Your task to perform on an android device: delete a single message in the gmail app Image 0: 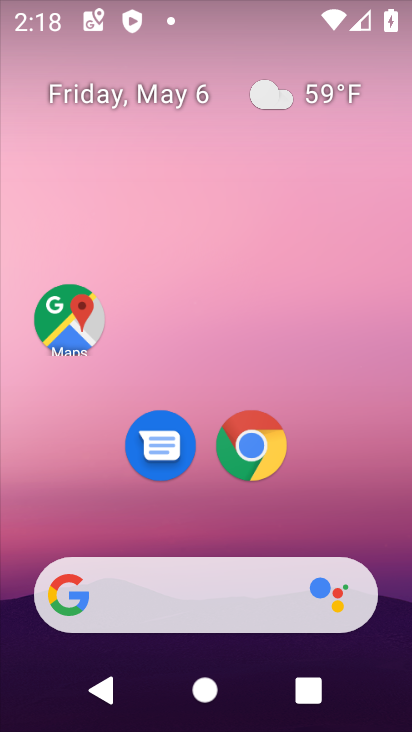
Step 0: click (236, 87)
Your task to perform on an android device: delete a single message in the gmail app Image 1: 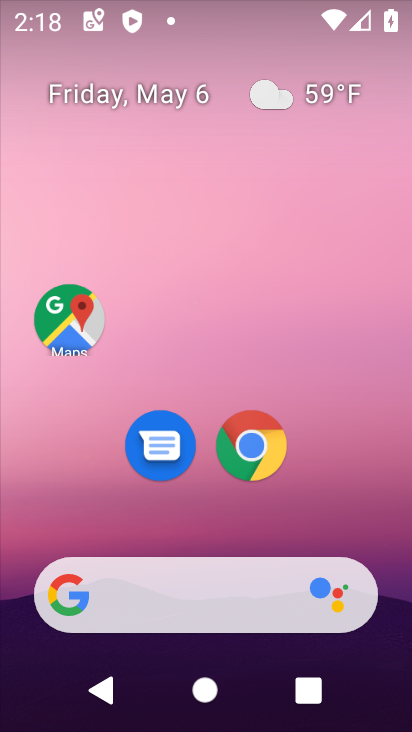
Step 1: click (205, 102)
Your task to perform on an android device: delete a single message in the gmail app Image 2: 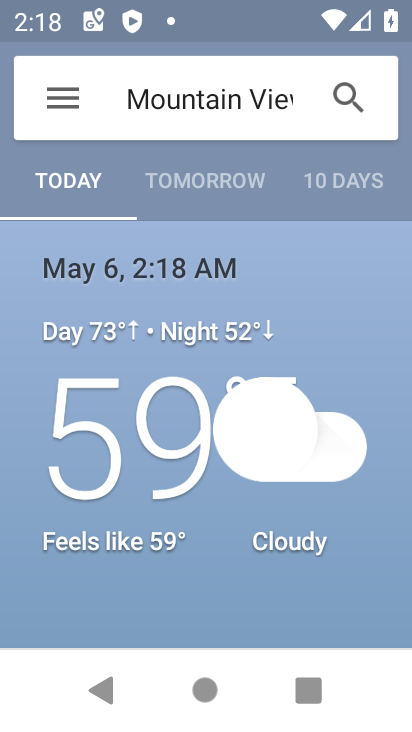
Step 2: press home button
Your task to perform on an android device: delete a single message in the gmail app Image 3: 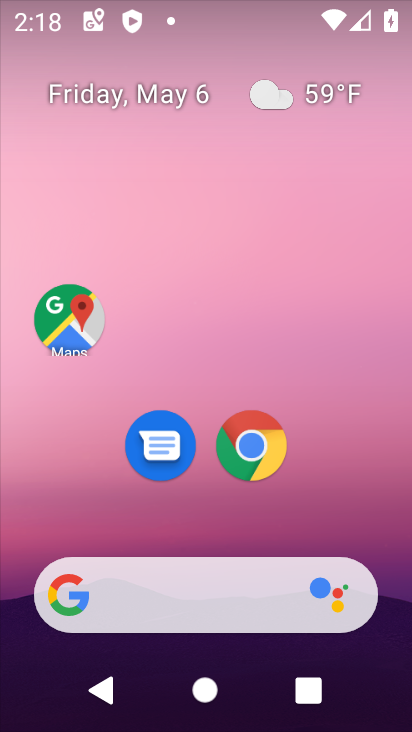
Step 3: drag from (341, 473) to (191, 10)
Your task to perform on an android device: delete a single message in the gmail app Image 4: 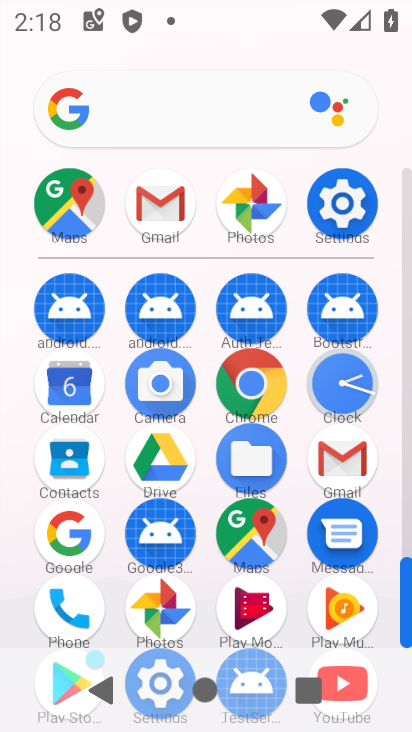
Step 4: click (339, 492)
Your task to perform on an android device: delete a single message in the gmail app Image 5: 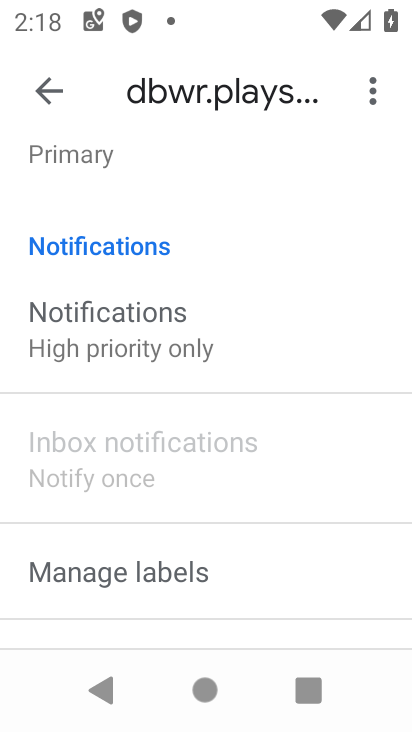
Step 5: click (38, 85)
Your task to perform on an android device: delete a single message in the gmail app Image 6: 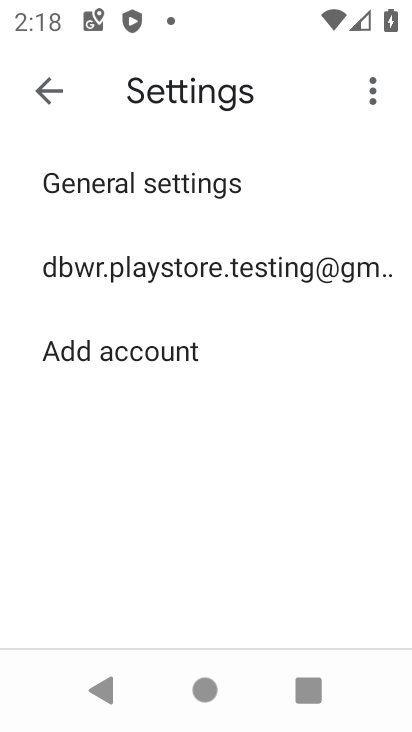
Step 6: click (52, 92)
Your task to perform on an android device: delete a single message in the gmail app Image 7: 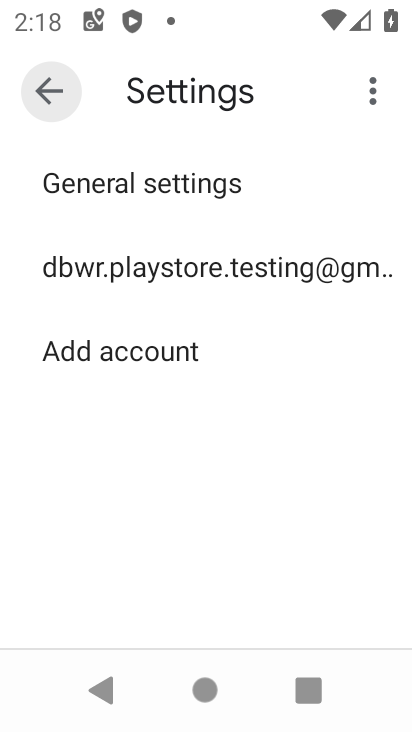
Step 7: click (53, 92)
Your task to perform on an android device: delete a single message in the gmail app Image 8: 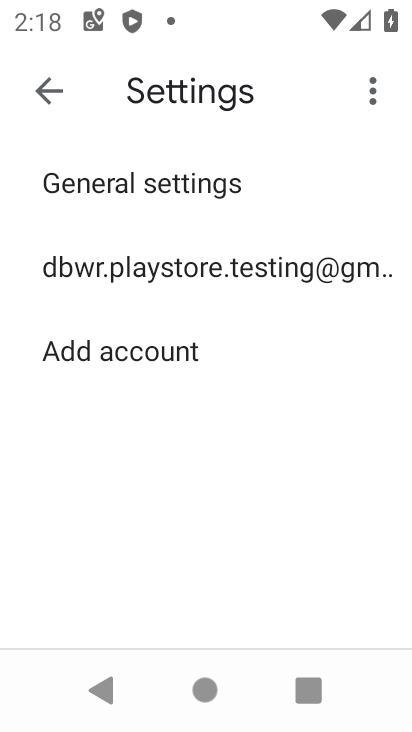
Step 8: click (53, 92)
Your task to perform on an android device: delete a single message in the gmail app Image 9: 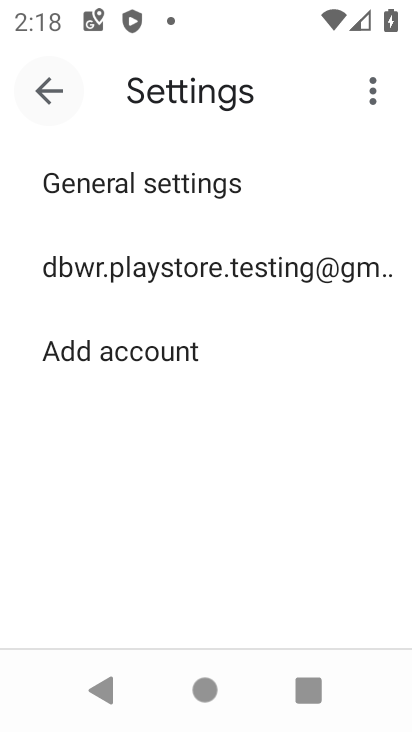
Step 9: click (53, 92)
Your task to perform on an android device: delete a single message in the gmail app Image 10: 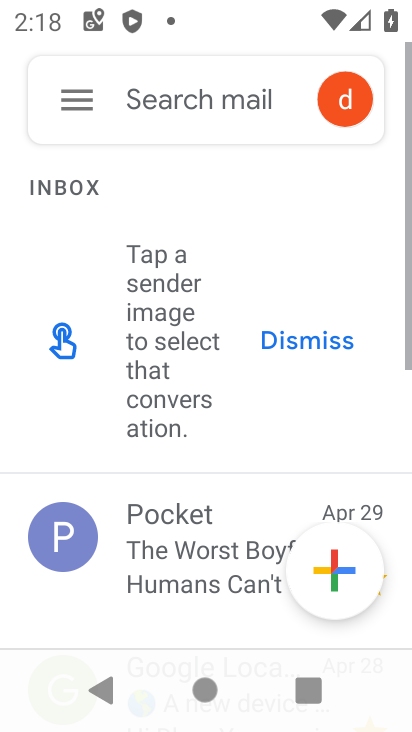
Step 10: click (53, 92)
Your task to perform on an android device: delete a single message in the gmail app Image 11: 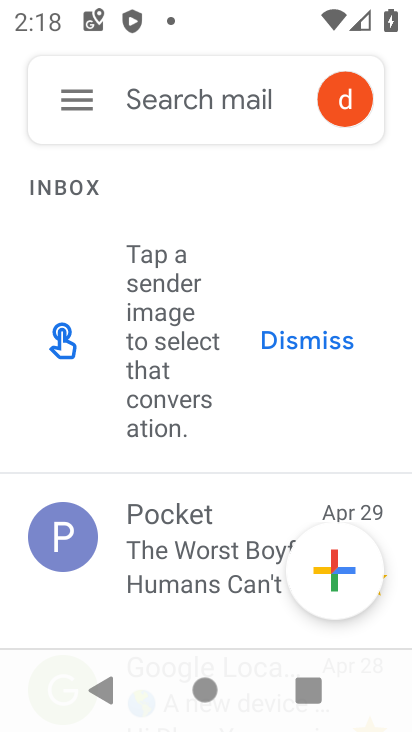
Step 11: click (140, 337)
Your task to perform on an android device: delete a single message in the gmail app Image 12: 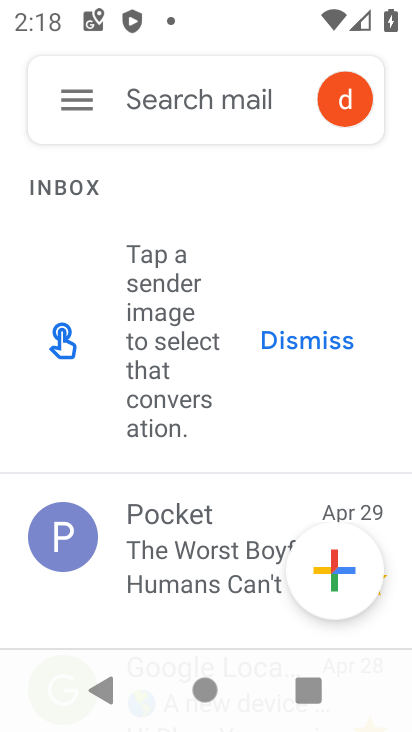
Step 12: click (177, 528)
Your task to perform on an android device: delete a single message in the gmail app Image 13: 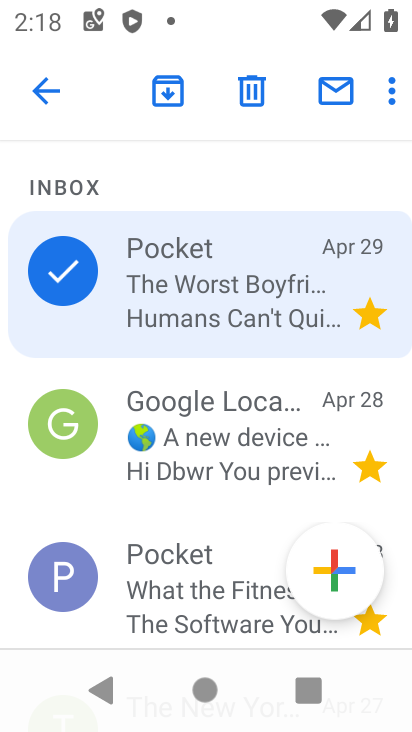
Step 13: click (247, 87)
Your task to perform on an android device: delete a single message in the gmail app Image 14: 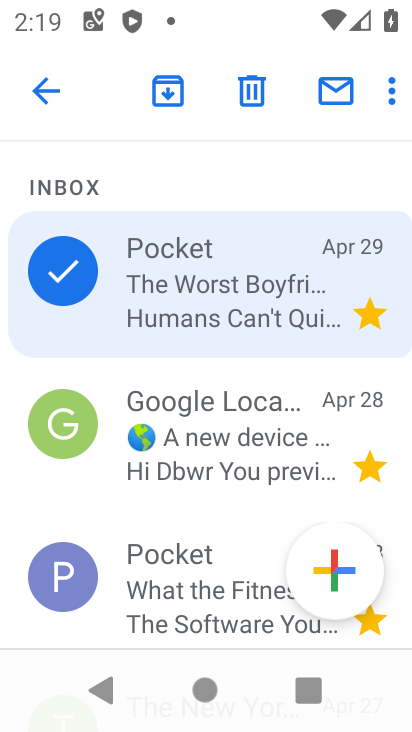
Step 14: click (252, 179)
Your task to perform on an android device: delete a single message in the gmail app Image 15: 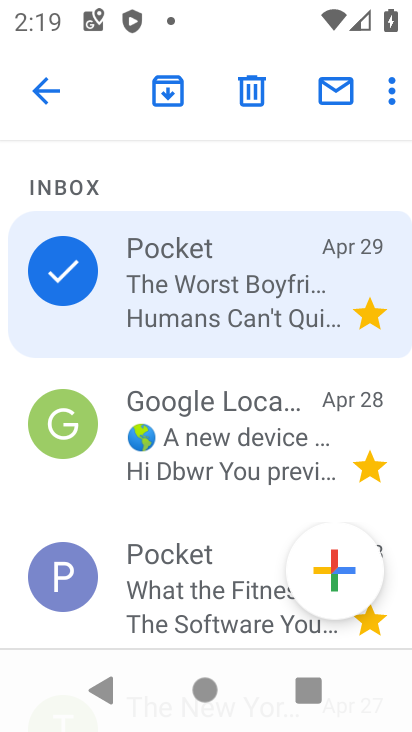
Step 15: click (251, 93)
Your task to perform on an android device: delete a single message in the gmail app Image 16: 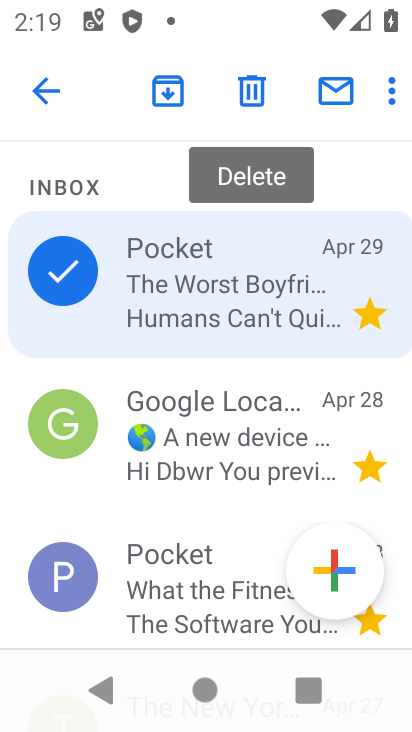
Step 16: click (246, 96)
Your task to perform on an android device: delete a single message in the gmail app Image 17: 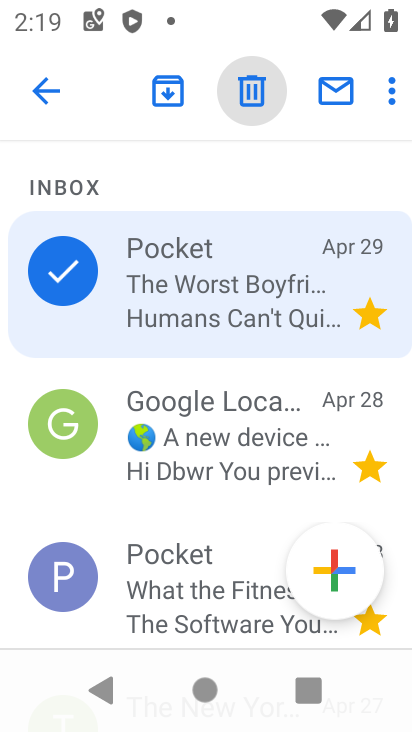
Step 17: click (249, 83)
Your task to perform on an android device: delete a single message in the gmail app Image 18: 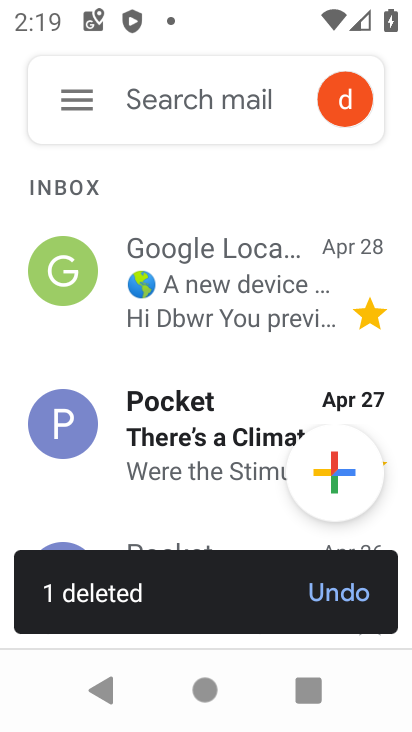
Step 18: press home button
Your task to perform on an android device: delete a single message in the gmail app Image 19: 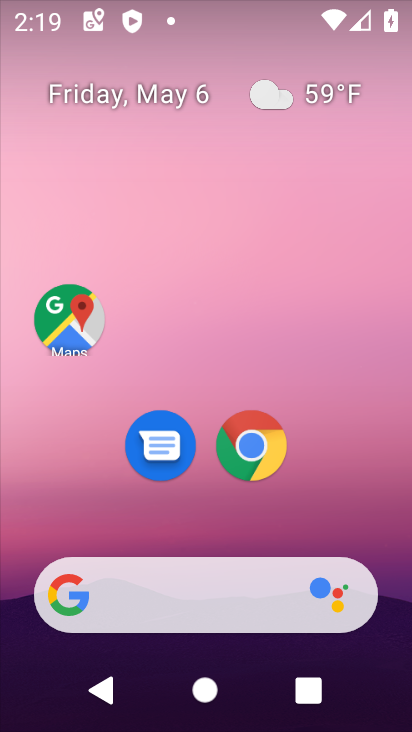
Step 19: drag from (370, 546) to (205, 99)
Your task to perform on an android device: delete a single message in the gmail app Image 20: 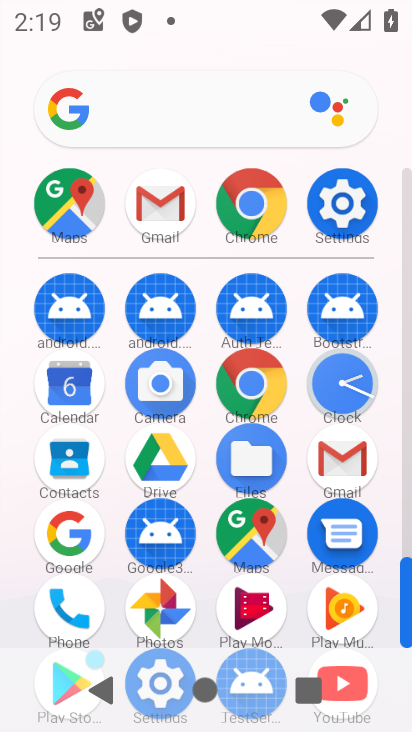
Step 20: click (334, 449)
Your task to perform on an android device: delete a single message in the gmail app Image 21: 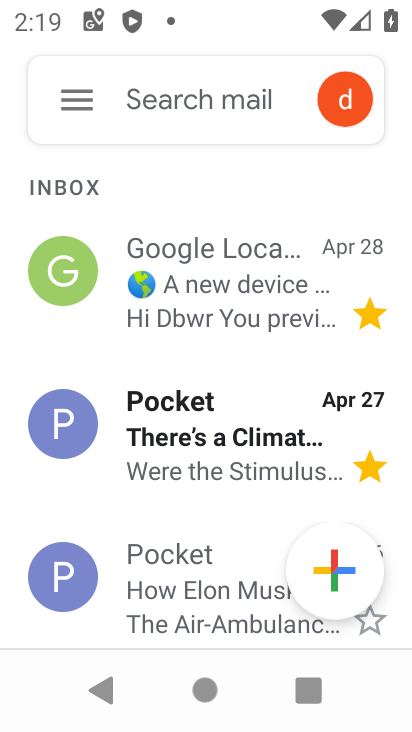
Step 21: click (235, 286)
Your task to perform on an android device: delete a single message in the gmail app Image 22: 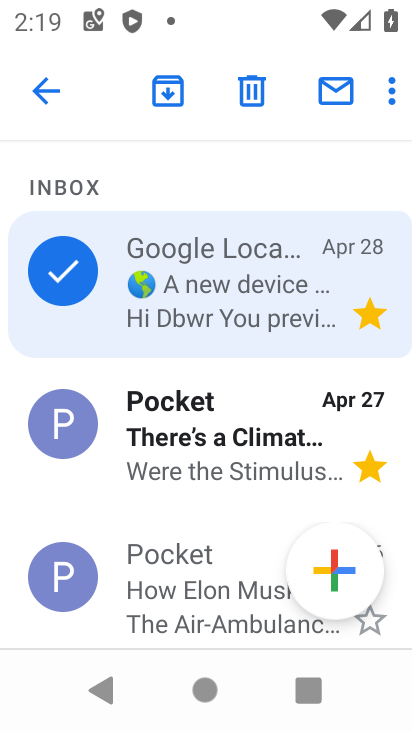
Step 22: click (255, 86)
Your task to perform on an android device: delete a single message in the gmail app Image 23: 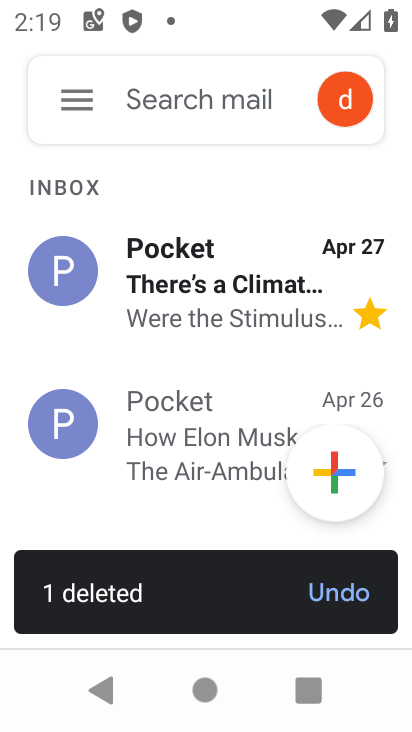
Step 23: task complete